Your task to perform on an android device: check google app version Image 0: 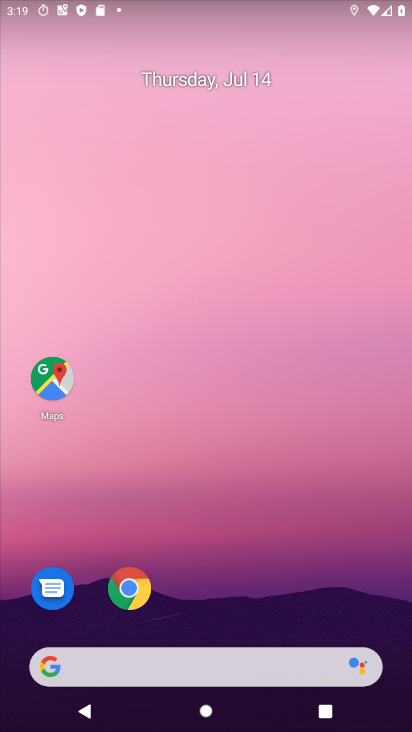
Step 0: drag from (181, 665) to (247, 251)
Your task to perform on an android device: check google app version Image 1: 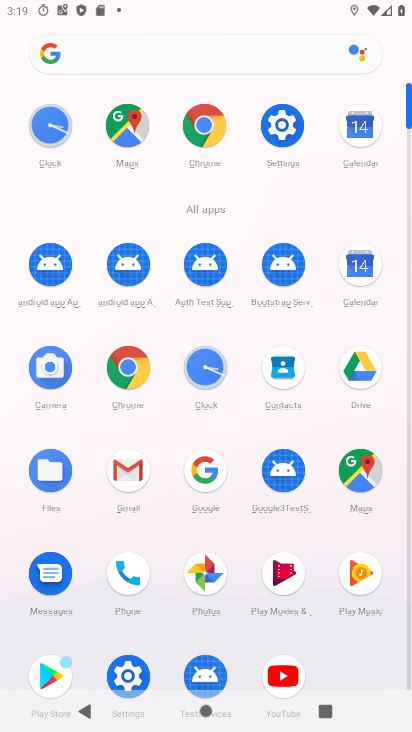
Step 1: click (206, 470)
Your task to perform on an android device: check google app version Image 2: 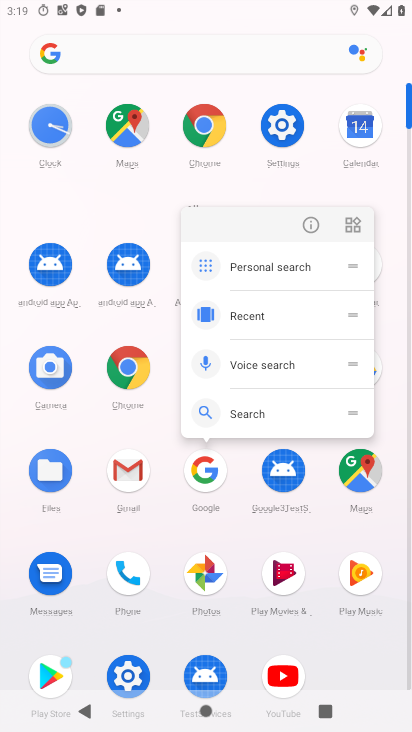
Step 2: click (314, 225)
Your task to perform on an android device: check google app version Image 3: 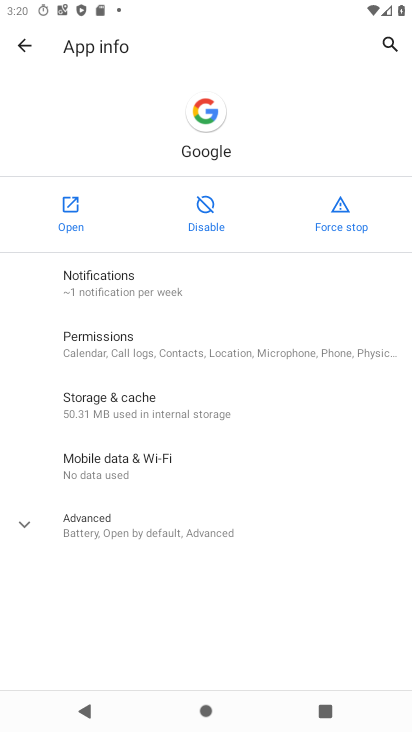
Step 3: click (161, 534)
Your task to perform on an android device: check google app version Image 4: 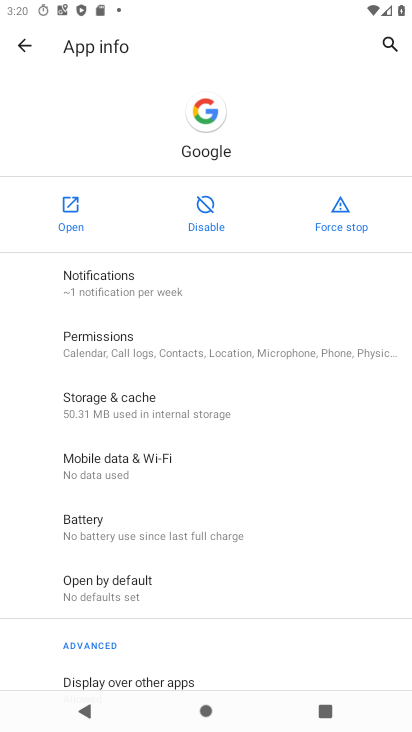
Step 4: task complete